Your task to perform on an android device: Clear the shopping cart on bestbuy. Search for razer blade on bestbuy, select the first entry, add it to the cart, then select checkout. Image 0: 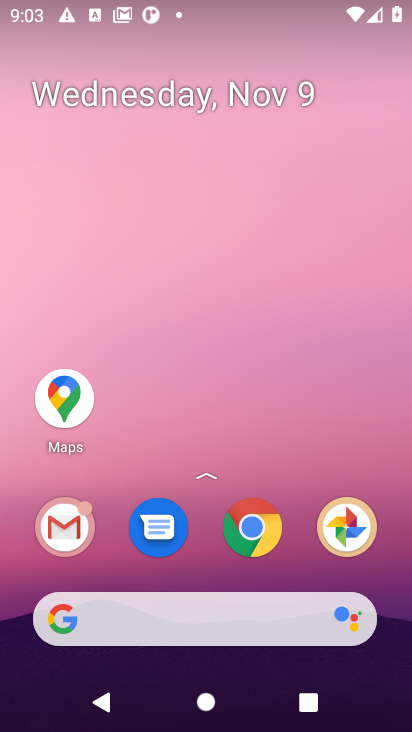
Step 0: click (251, 532)
Your task to perform on an android device: Clear the shopping cart on bestbuy. Search for razer blade on bestbuy, select the first entry, add it to the cart, then select checkout. Image 1: 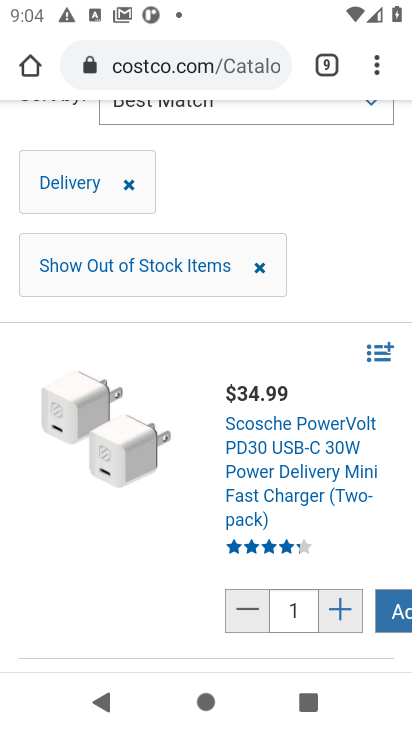
Step 1: click (184, 70)
Your task to perform on an android device: Clear the shopping cart on bestbuy. Search for razer blade on bestbuy, select the first entry, add it to the cart, then select checkout. Image 2: 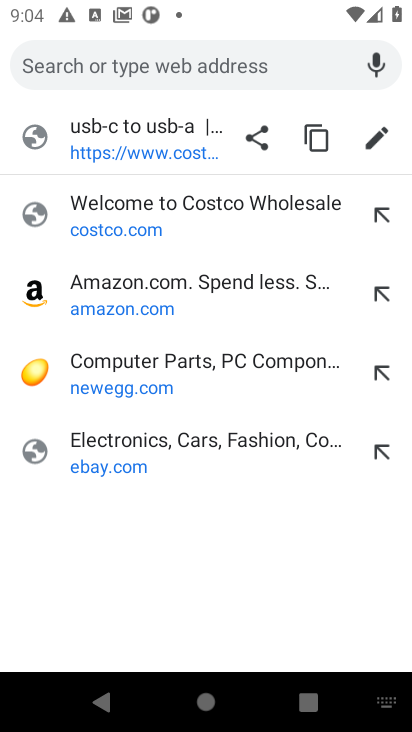
Step 2: type "bestbuy.com"
Your task to perform on an android device: Clear the shopping cart on bestbuy. Search for razer blade on bestbuy, select the first entry, add it to the cart, then select checkout. Image 3: 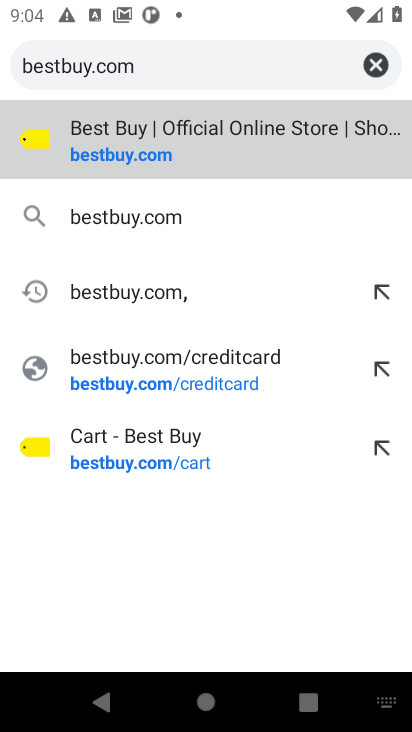
Step 3: click (143, 161)
Your task to perform on an android device: Clear the shopping cart on bestbuy. Search for razer blade on bestbuy, select the first entry, add it to the cart, then select checkout. Image 4: 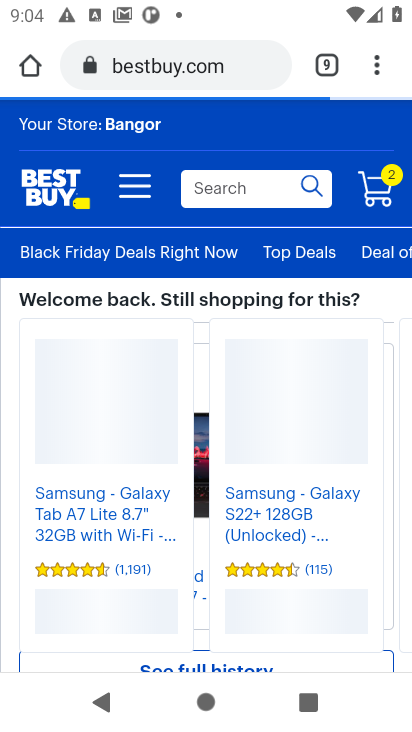
Step 4: click (384, 185)
Your task to perform on an android device: Clear the shopping cart on bestbuy. Search for razer blade on bestbuy, select the first entry, add it to the cart, then select checkout. Image 5: 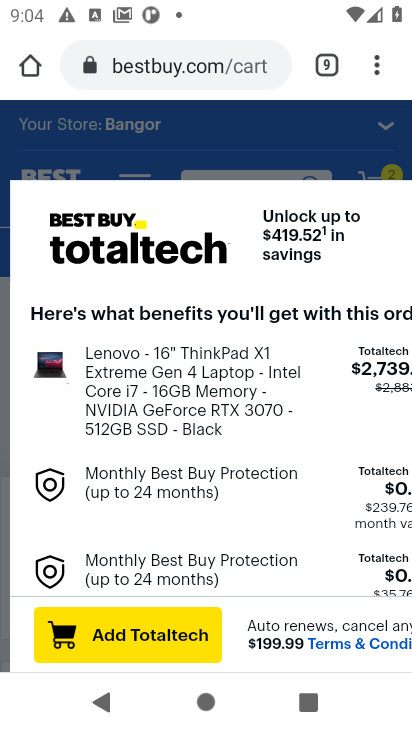
Step 5: drag from (258, 432) to (262, 275)
Your task to perform on an android device: Clear the shopping cart on bestbuy. Search for razer blade on bestbuy, select the first entry, add it to the cart, then select checkout. Image 6: 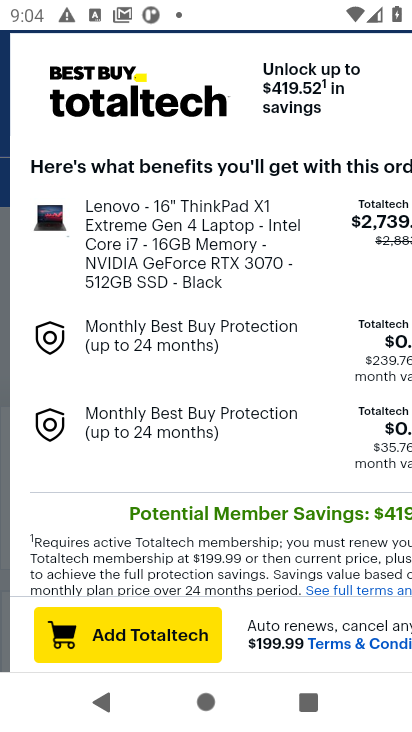
Step 6: drag from (251, 500) to (256, 223)
Your task to perform on an android device: Clear the shopping cart on bestbuy. Search for razer blade on bestbuy, select the first entry, add it to the cart, then select checkout. Image 7: 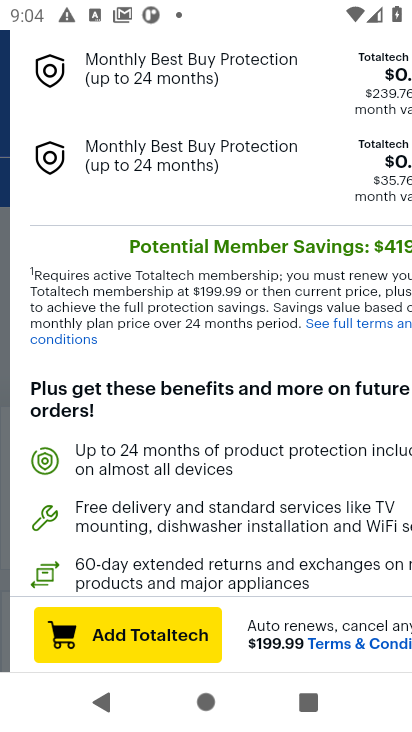
Step 7: drag from (269, 526) to (277, 203)
Your task to perform on an android device: Clear the shopping cart on bestbuy. Search for razer blade on bestbuy, select the first entry, add it to the cart, then select checkout. Image 8: 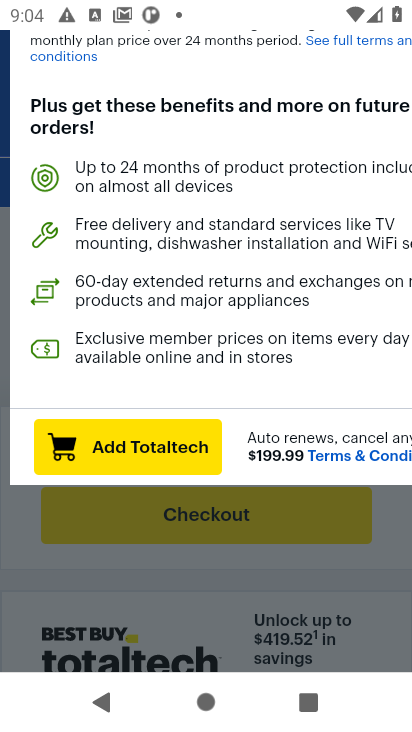
Step 8: click (386, 552)
Your task to perform on an android device: Clear the shopping cart on bestbuy. Search for razer blade on bestbuy, select the first entry, add it to the cart, then select checkout. Image 9: 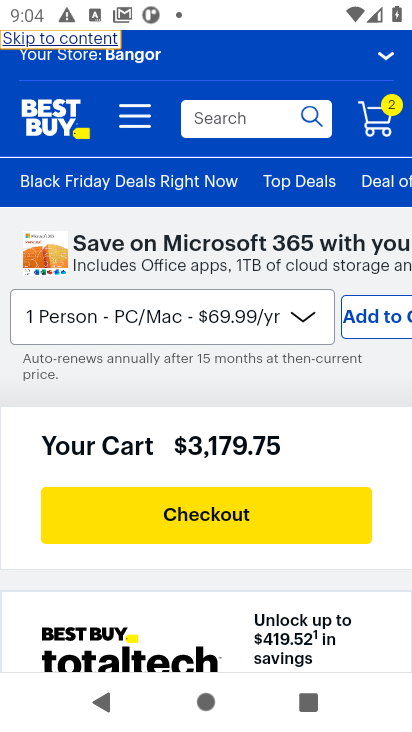
Step 9: drag from (383, 473) to (396, 155)
Your task to perform on an android device: Clear the shopping cart on bestbuy. Search for razer blade on bestbuy, select the first entry, add it to the cart, then select checkout. Image 10: 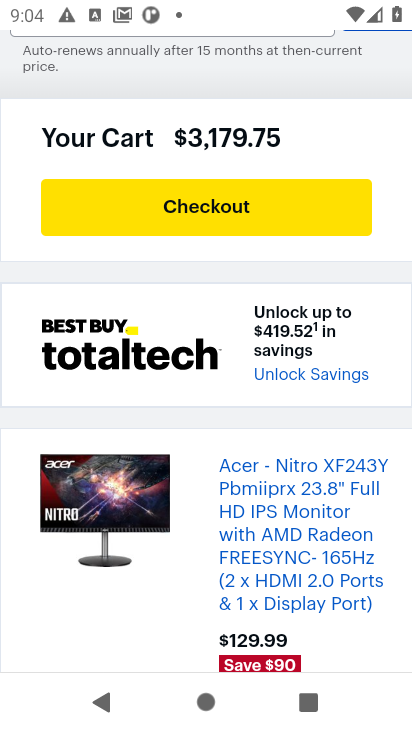
Step 10: drag from (377, 532) to (370, 204)
Your task to perform on an android device: Clear the shopping cart on bestbuy. Search for razer blade on bestbuy, select the first entry, add it to the cart, then select checkout. Image 11: 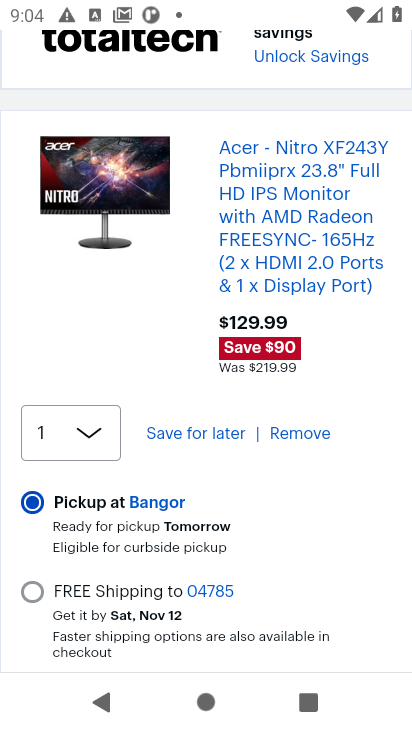
Step 11: click (312, 430)
Your task to perform on an android device: Clear the shopping cart on bestbuy. Search for razer blade on bestbuy, select the first entry, add it to the cart, then select checkout. Image 12: 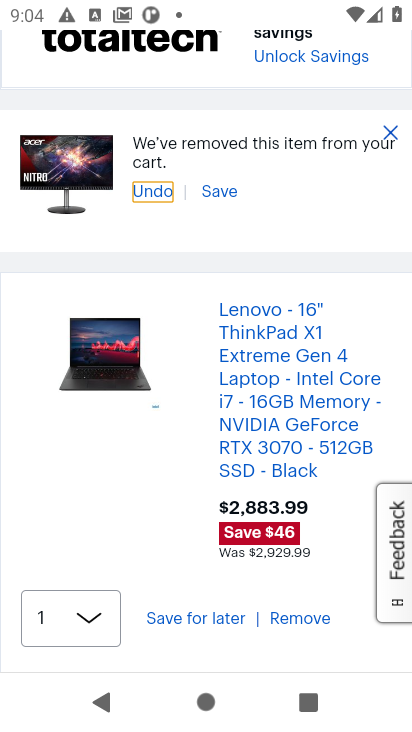
Step 12: click (294, 615)
Your task to perform on an android device: Clear the shopping cart on bestbuy. Search for razer blade on bestbuy, select the first entry, add it to the cart, then select checkout. Image 13: 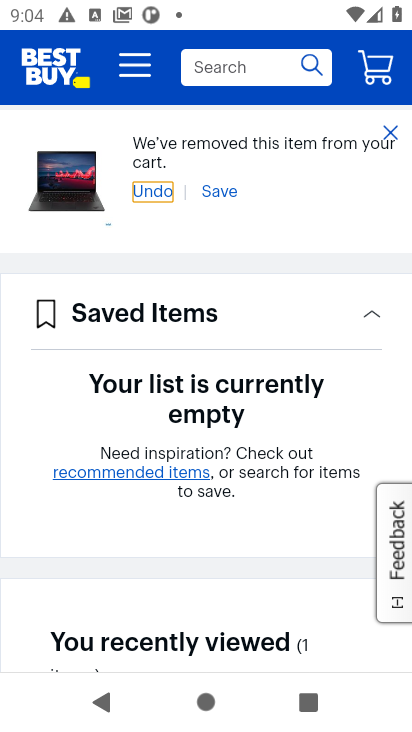
Step 13: drag from (277, 574) to (277, 408)
Your task to perform on an android device: Clear the shopping cart on bestbuy. Search for razer blade on bestbuy, select the first entry, add it to the cart, then select checkout. Image 14: 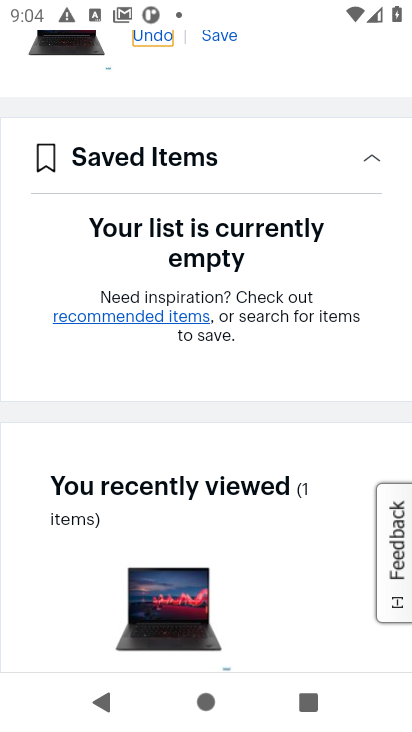
Step 14: drag from (284, 301) to (281, 580)
Your task to perform on an android device: Clear the shopping cart on bestbuy. Search for razer blade on bestbuy, select the first entry, add it to the cart, then select checkout. Image 15: 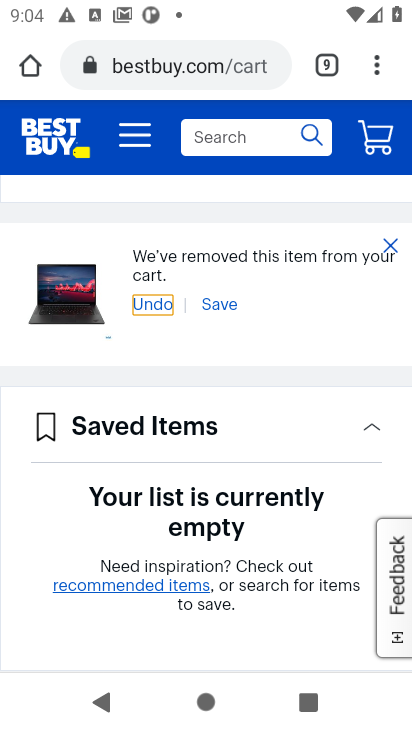
Step 15: click (302, 131)
Your task to perform on an android device: Clear the shopping cart on bestbuy. Search for razer blade on bestbuy, select the first entry, add it to the cart, then select checkout. Image 16: 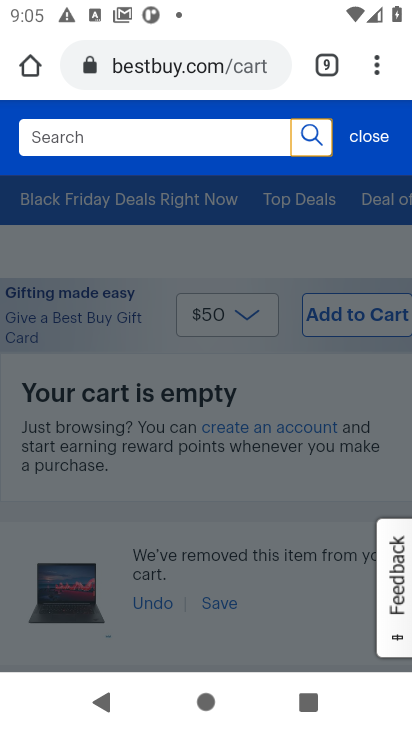
Step 16: type "razer blade "
Your task to perform on an android device: Clear the shopping cart on bestbuy. Search for razer blade on bestbuy, select the first entry, add it to the cart, then select checkout. Image 17: 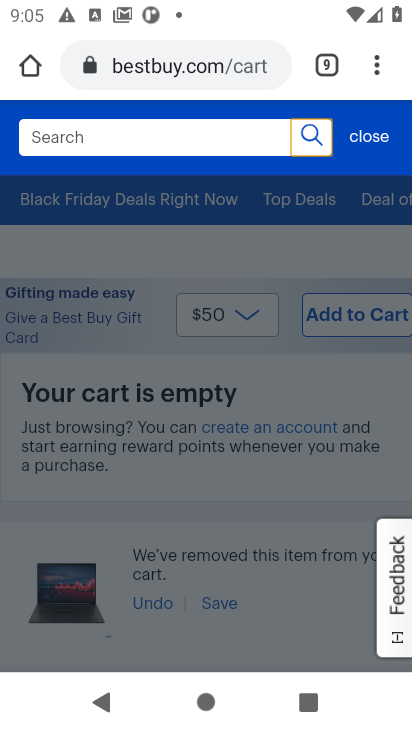
Step 17: click (168, 137)
Your task to perform on an android device: Clear the shopping cart on bestbuy. Search for razer blade on bestbuy, select the first entry, add it to the cart, then select checkout. Image 18: 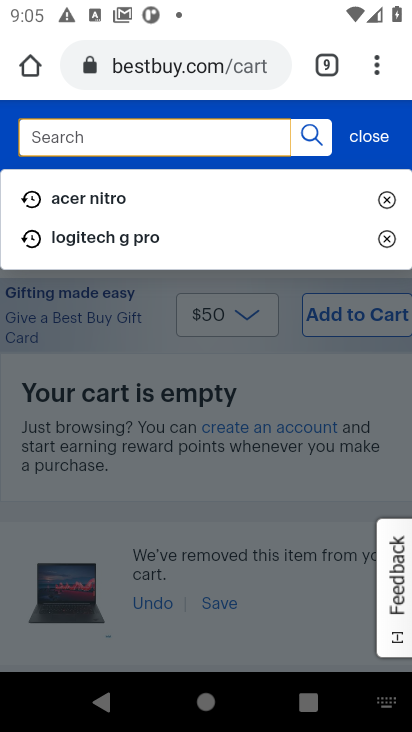
Step 18: type "razer blade "
Your task to perform on an android device: Clear the shopping cart on bestbuy. Search for razer blade on bestbuy, select the first entry, add it to the cart, then select checkout. Image 19: 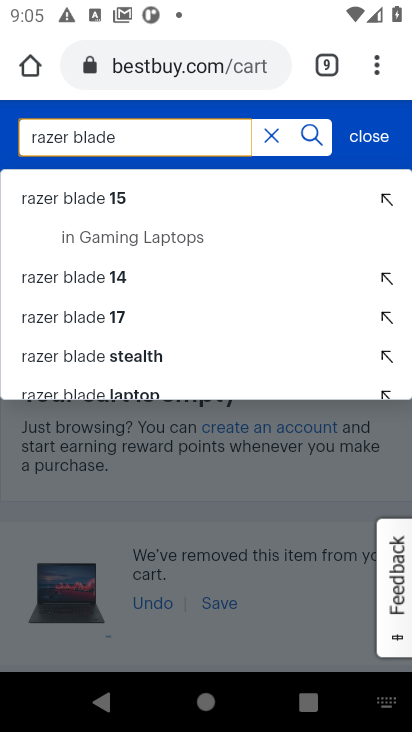
Step 19: click (310, 131)
Your task to perform on an android device: Clear the shopping cart on bestbuy. Search for razer blade on bestbuy, select the first entry, add it to the cart, then select checkout. Image 20: 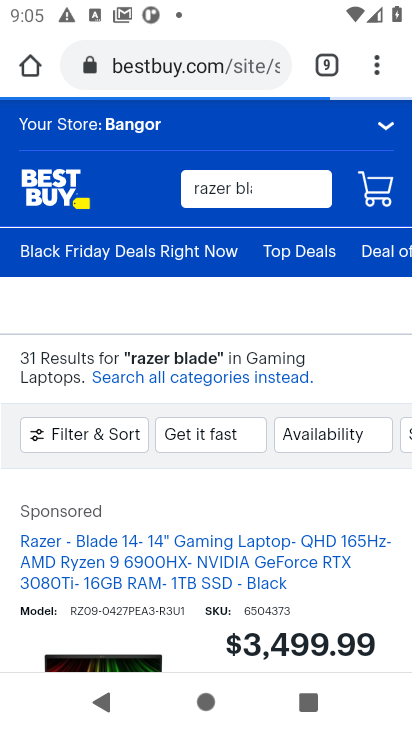
Step 20: drag from (191, 503) to (203, 309)
Your task to perform on an android device: Clear the shopping cart on bestbuy. Search for razer blade on bestbuy, select the first entry, add it to the cart, then select checkout. Image 21: 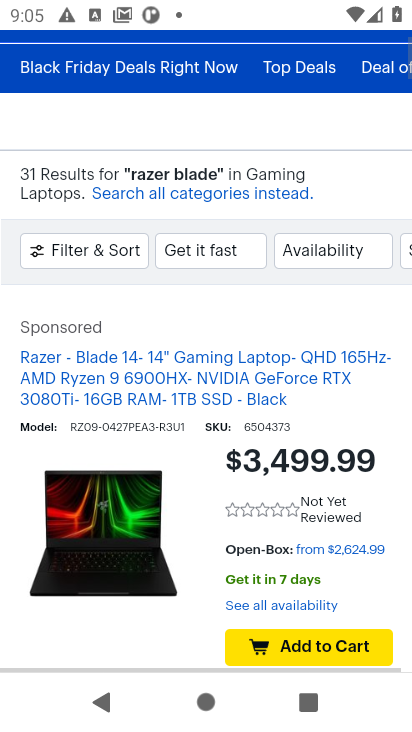
Step 21: drag from (192, 451) to (192, 347)
Your task to perform on an android device: Clear the shopping cart on bestbuy. Search for razer blade on bestbuy, select the first entry, add it to the cart, then select checkout. Image 22: 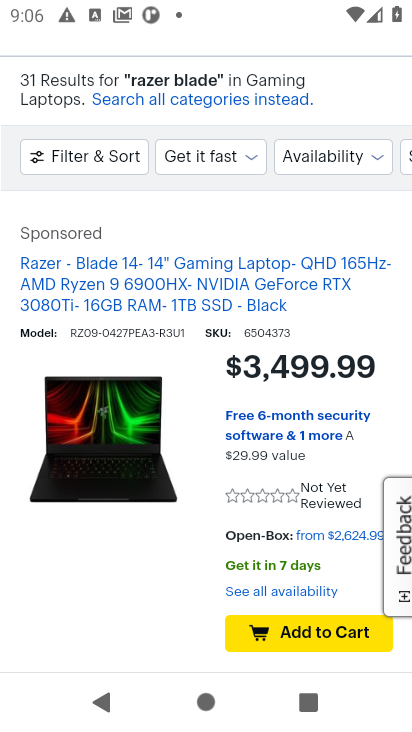
Step 22: click (305, 631)
Your task to perform on an android device: Clear the shopping cart on bestbuy. Search for razer blade on bestbuy, select the first entry, add it to the cart, then select checkout. Image 23: 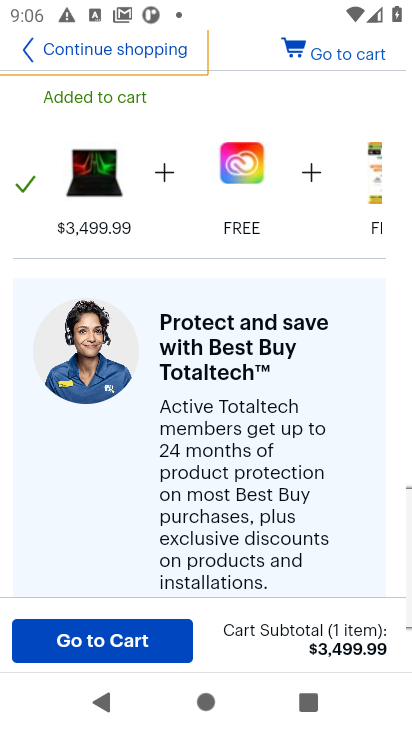
Step 23: click (333, 51)
Your task to perform on an android device: Clear the shopping cart on bestbuy. Search for razer blade on bestbuy, select the first entry, add it to the cart, then select checkout. Image 24: 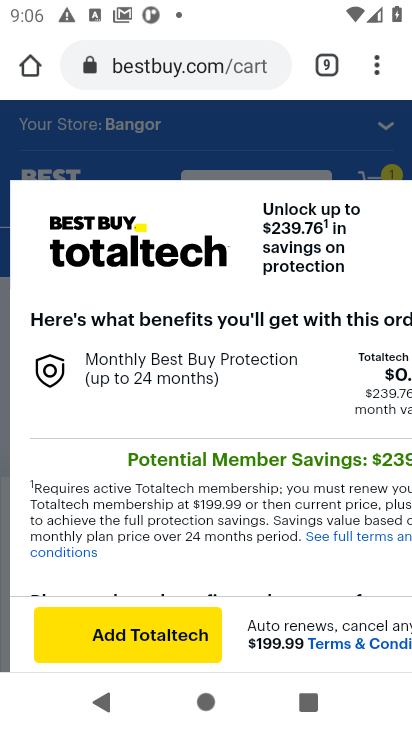
Step 24: drag from (251, 483) to (237, 150)
Your task to perform on an android device: Clear the shopping cart on bestbuy. Search for razer blade on bestbuy, select the first entry, add it to the cart, then select checkout. Image 25: 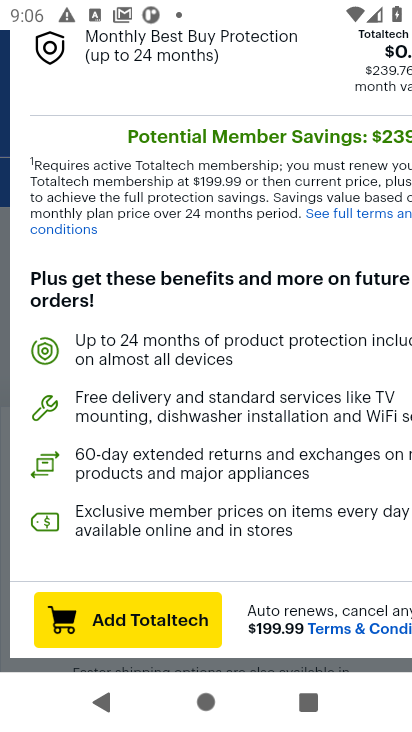
Step 25: drag from (299, 369) to (264, 55)
Your task to perform on an android device: Clear the shopping cart on bestbuy. Search for razer blade on bestbuy, select the first entry, add it to the cart, then select checkout. Image 26: 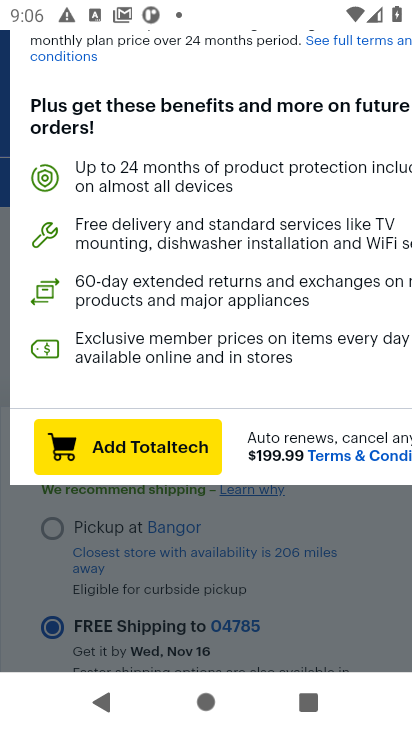
Step 26: click (378, 557)
Your task to perform on an android device: Clear the shopping cart on bestbuy. Search for razer blade on bestbuy, select the first entry, add it to the cart, then select checkout. Image 27: 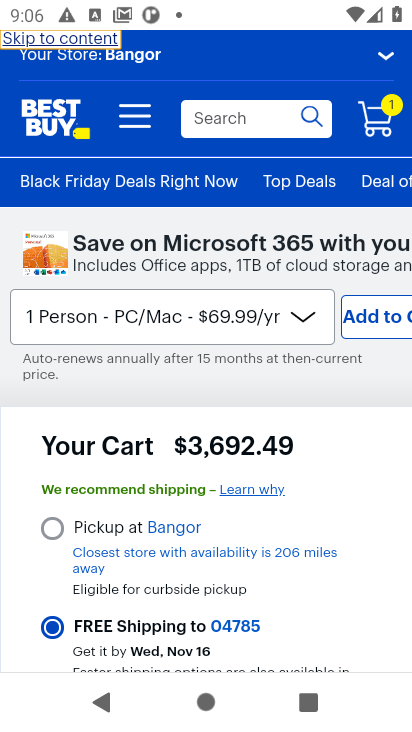
Step 27: drag from (268, 563) to (239, 212)
Your task to perform on an android device: Clear the shopping cart on bestbuy. Search for razer blade on bestbuy, select the first entry, add it to the cart, then select checkout. Image 28: 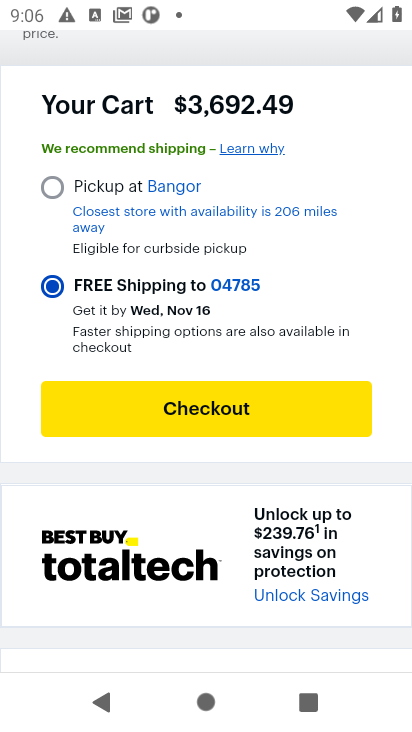
Step 28: click (214, 401)
Your task to perform on an android device: Clear the shopping cart on bestbuy. Search for razer blade on bestbuy, select the first entry, add it to the cart, then select checkout. Image 29: 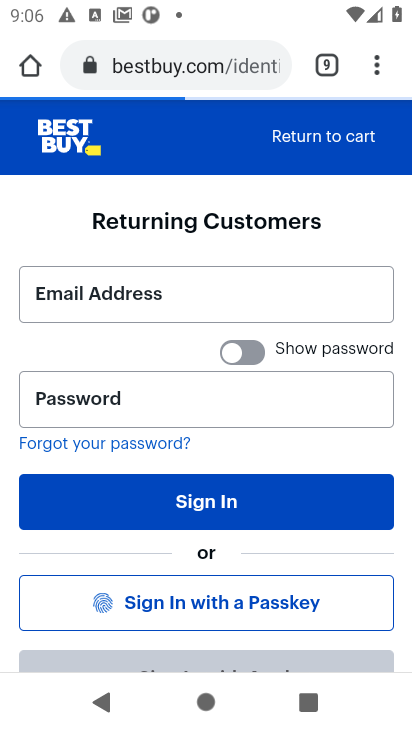
Step 29: task complete